Your task to perform on an android device: toggle sleep mode Image 0: 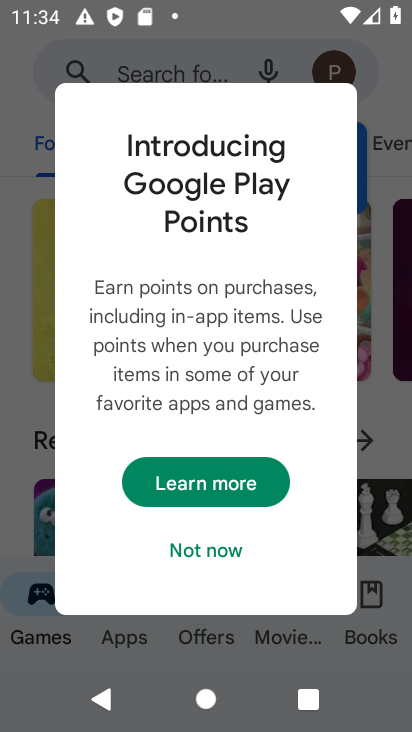
Step 0: press home button
Your task to perform on an android device: toggle sleep mode Image 1: 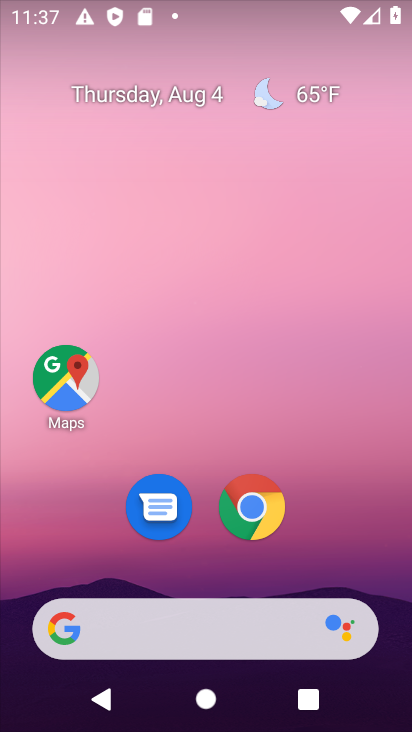
Step 1: drag from (327, 543) to (351, 188)
Your task to perform on an android device: toggle sleep mode Image 2: 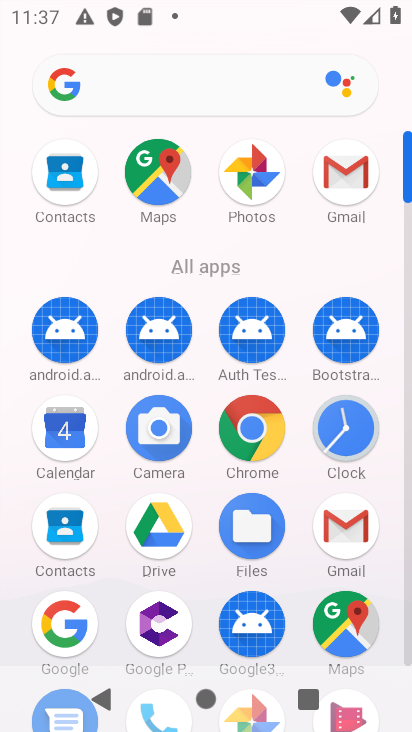
Step 2: drag from (203, 511) to (251, 250)
Your task to perform on an android device: toggle sleep mode Image 3: 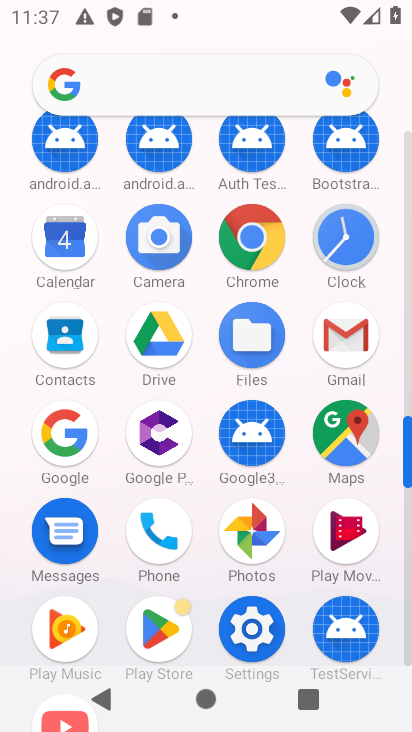
Step 3: drag from (257, 636) to (125, 244)
Your task to perform on an android device: toggle sleep mode Image 4: 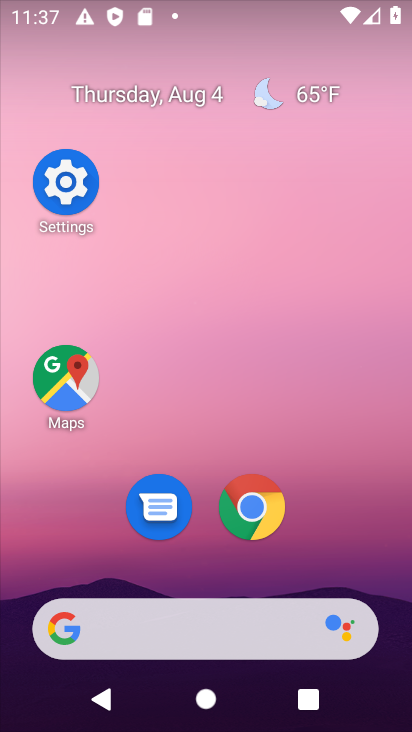
Step 4: click (74, 193)
Your task to perform on an android device: toggle sleep mode Image 5: 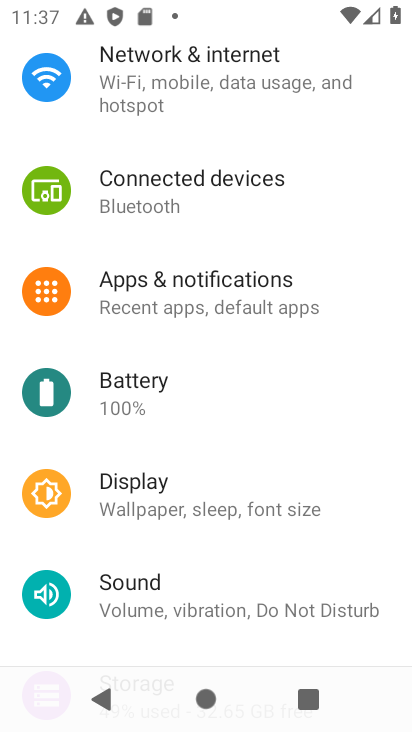
Step 5: drag from (215, 559) to (269, 239)
Your task to perform on an android device: toggle sleep mode Image 6: 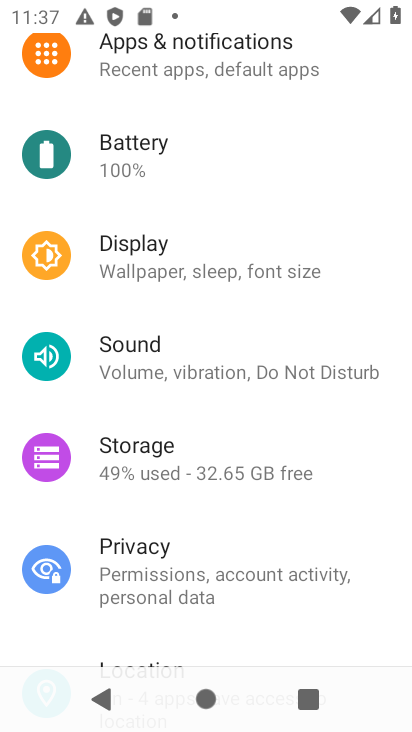
Step 6: click (231, 257)
Your task to perform on an android device: toggle sleep mode Image 7: 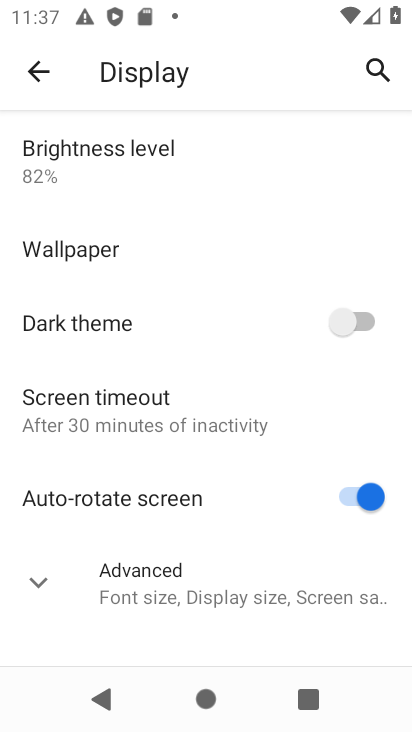
Step 7: click (220, 421)
Your task to perform on an android device: toggle sleep mode Image 8: 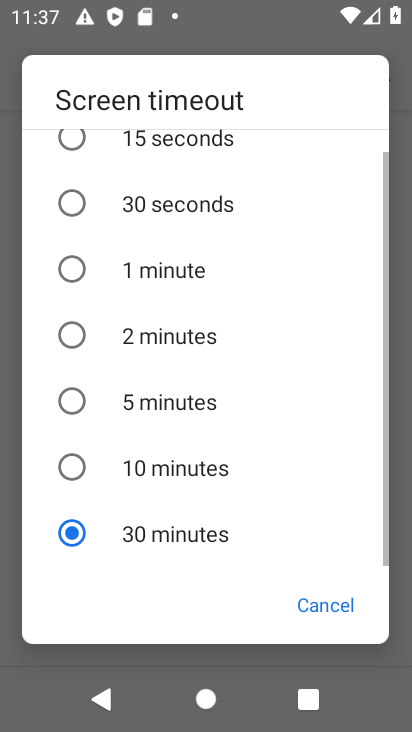
Step 8: click (213, 198)
Your task to perform on an android device: toggle sleep mode Image 9: 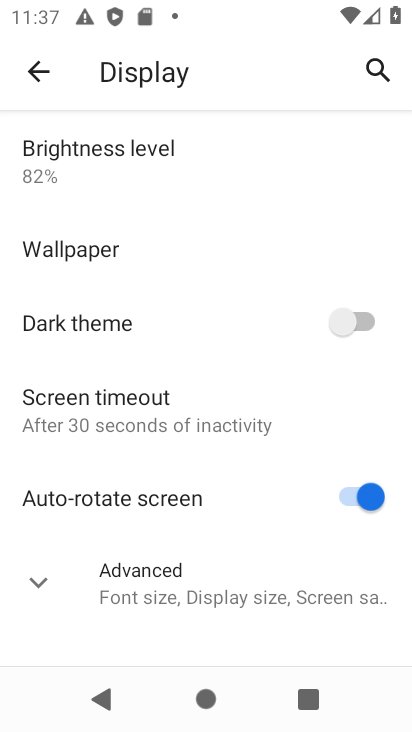
Step 9: task complete